Your task to perform on an android device: Empty the shopping cart on target.com. Add "dell alienware" to the cart on target.com, then select checkout. Image 0: 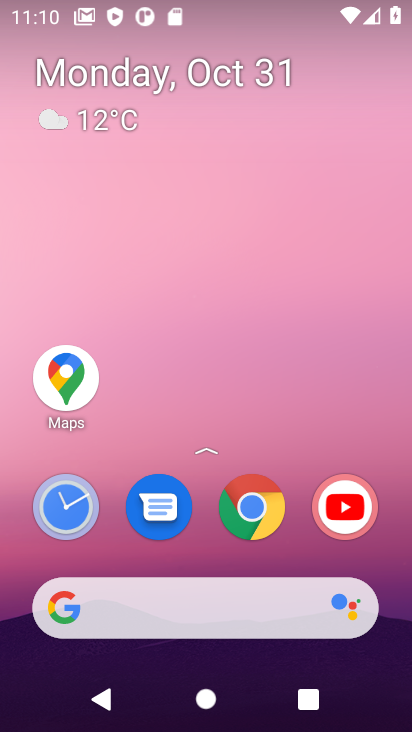
Step 0: click (305, 37)
Your task to perform on an android device: Empty the shopping cart on target.com. Add "dell alienware" to the cart on target.com, then select checkout. Image 1: 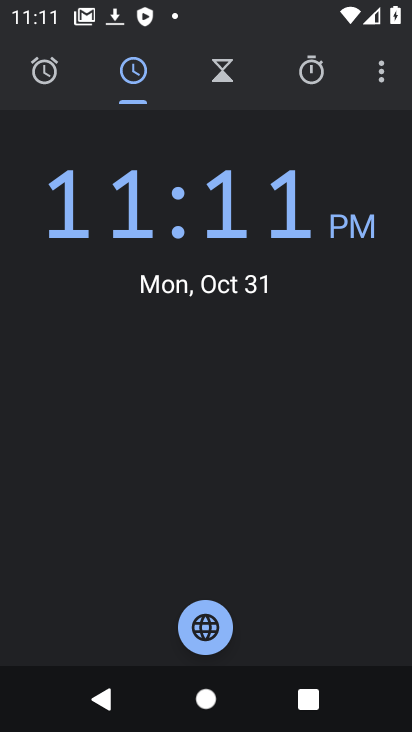
Step 1: press home button
Your task to perform on an android device: Empty the shopping cart on target.com. Add "dell alienware" to the cart on target.com, then select checkout. Image 2: 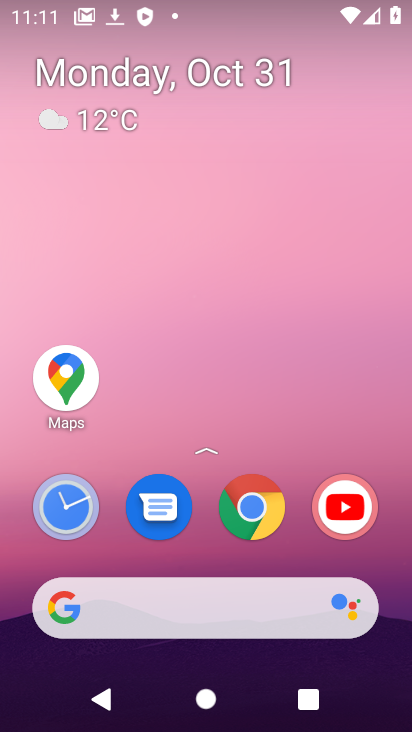
Step 2: drag from (308, 558) to (295, 58)
Your task to perform on an android device: Empty the shopping cart on target.com. Add "dell alienware" to the cart on target.com, then select checkout. Image 3: 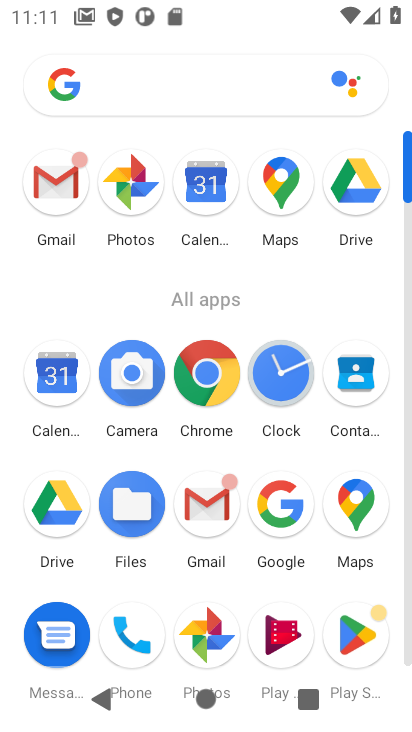
Step 3: click (203, 379)
Your task to perform on an android device: Empty the shopping cart on target.com. Add "dell alienware" to the cart on target.com, then select checkout. Image 4: 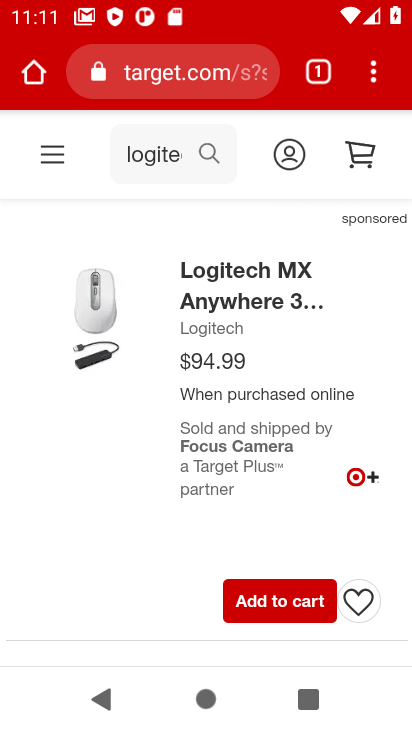
Step 4: click (201, 69)
Your task to perform on an android device: Empty the shopping cart on target.com. Add "dell alienware" to the cart on target.com, then select checkout. Image 5: 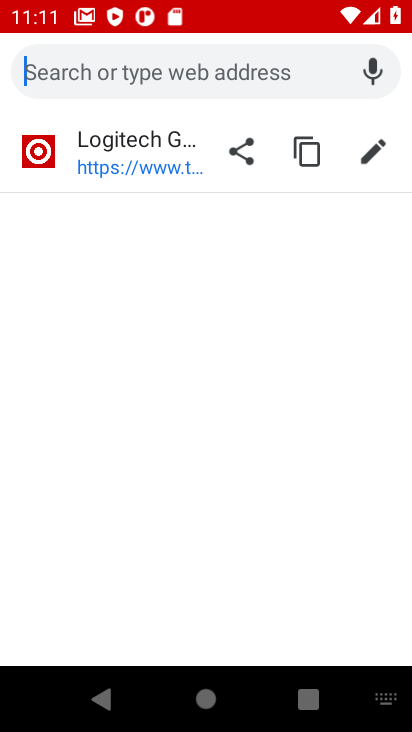
Step 5: type "target.com"
Your task to perform on an android device: Empty the shopping cart on target.com. Add "dell alienware" to the cart on target.com, then select checkout. Image 6: 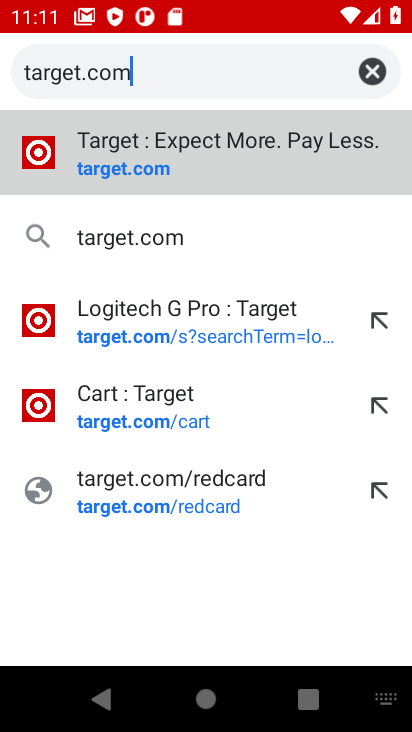
Step 6: press enter
Your task to perform on an android device: Empty the shopping cart on target.com. Add "dell alienware" to the cart on target.com, then select checkout. Image 7: 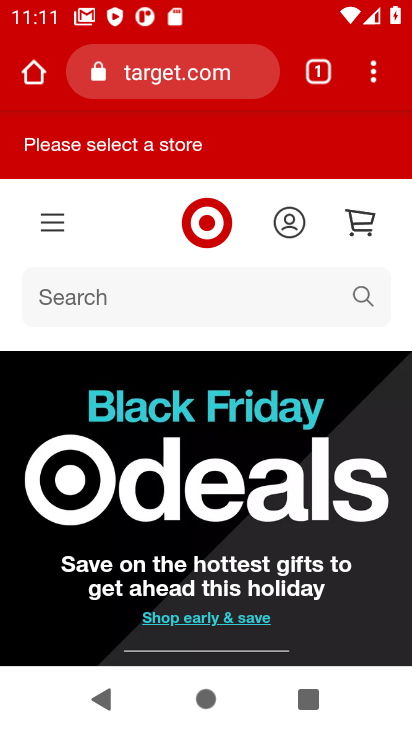
Step 7: click (139, 295)
Your task to perform on an android device: Empty the shopping cart on target.com. Add "dell alienware" to the cart on target.com, then select checkout. Image 8: 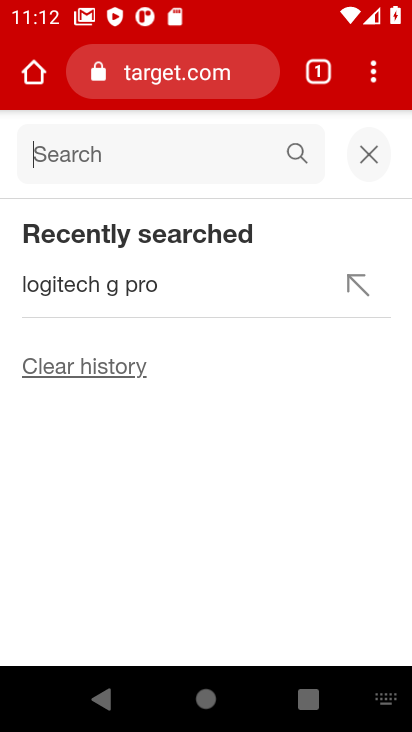
Step 8: type "dell alienware"
Your task to perform on an android device: Empty the shopping cart on target.com. Add "dell alienware" to the cart on target.com, then select checkout. Image 9: 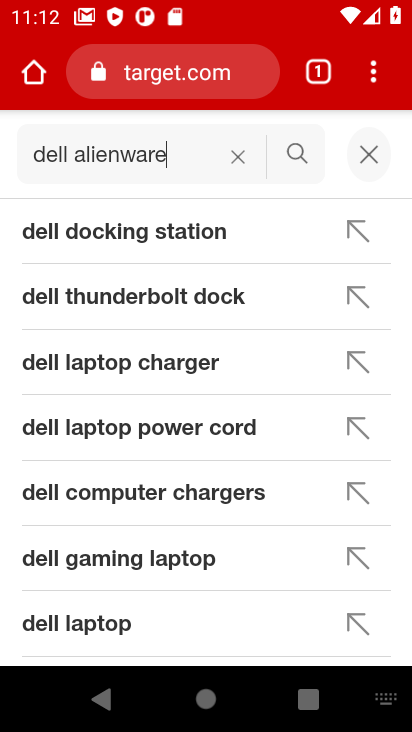
Step 9: press enter
Your task to perform on an android device: Empty the shopping cart on target.com. Add "dell alienware" to the cart on target.com, then select checkout. Image 10: 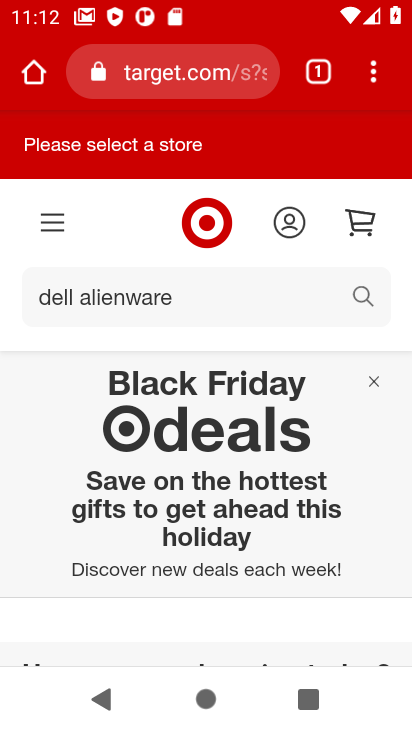
Step 10: task complete